Your task to perform on an android device: Open Google Maps and go to "Timeline" Image 0: 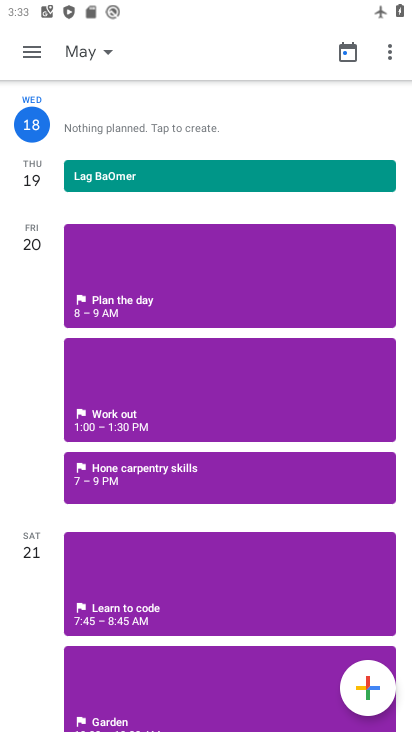
Step 0: press home button
Your task to perform on an android device: Open Google Maps and go to "Timeline" Image 1: 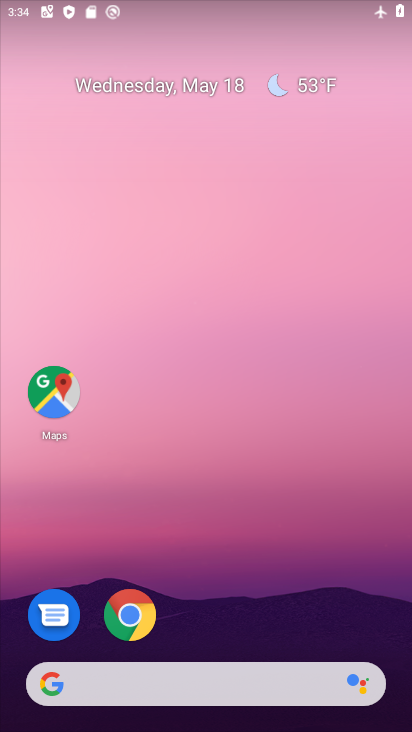
Step 1: click (56, 398)
Your task to perform on an android device: Open Google Maps and go to "Timeline" Image 2: 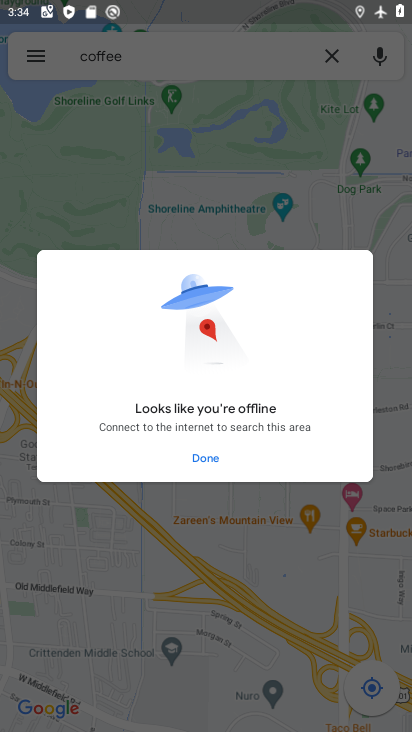
Step 2: click (194, 452)
Your task to perform on an android device: Open Google Maps and go to "Timeline" Image 3: 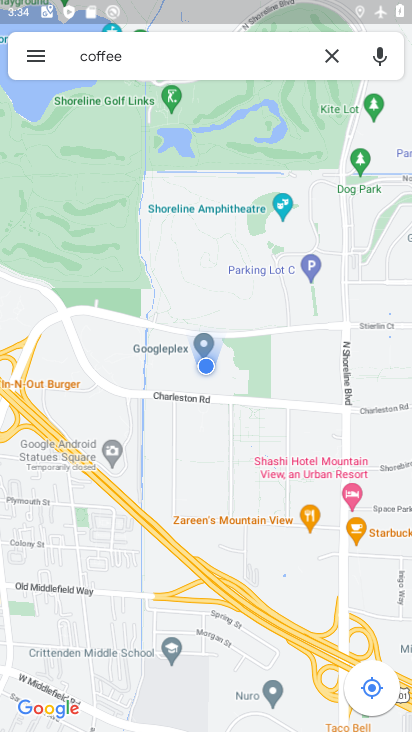
Step 3: click (27, 54)
Your task to perform on an android device: Open Google Maps and go to "Timeline" Image 4: 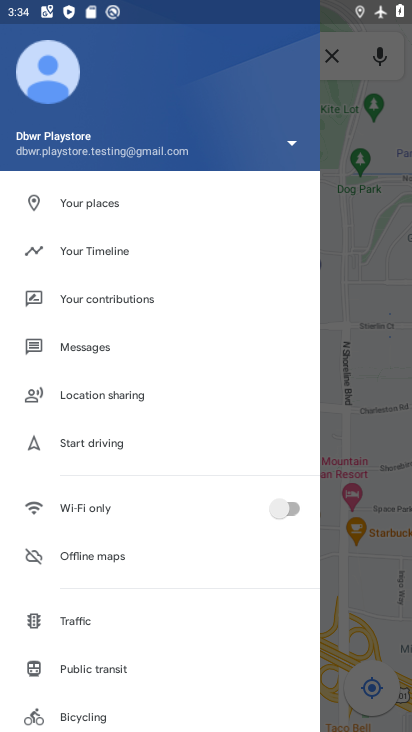
Step 4: click (114, 251)
Your task to perform on an android device: Open Google Maps and go to "Timeline" Image 5: 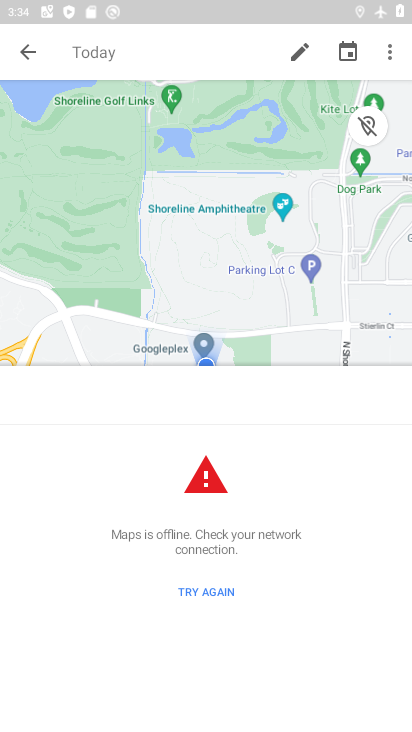
Step 5: task complete